Your task to perform on an android device: set the stopwatch Image 0: 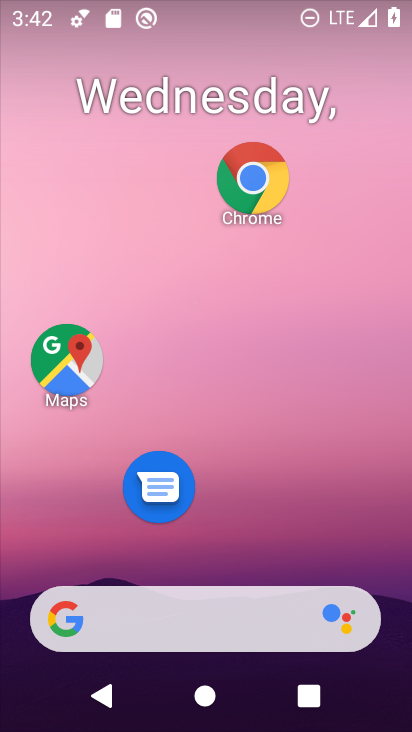
Step 0: drag from (244, 500) to (254, 117)
Your task to perform on an android device: set the stopwatch Image 1: 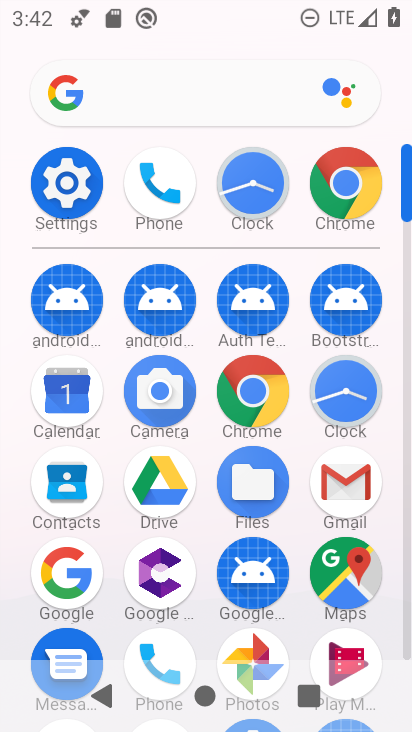
Step 1: click (251, 171)
Your task to perform on an android device: set the stopwatch Image 2: 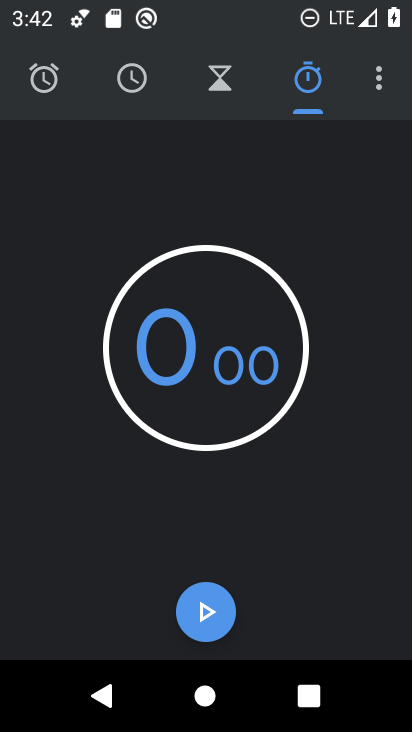
Step 2: task complete